Your task to perform on an android device: Go to eBay Image 0: 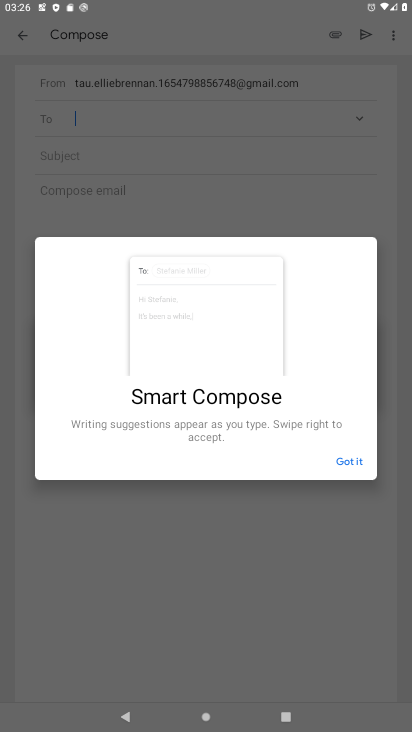
Step 0: press home button
Your task to perform on an android device: Go to eBay Image 1: 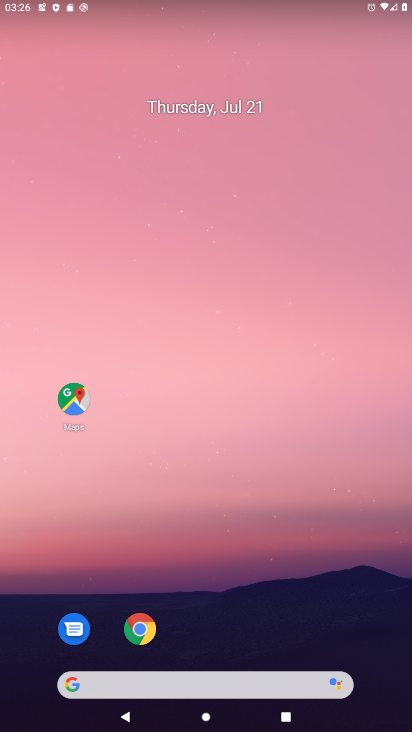
Step 1: press home button
Your task to perform on an android device: Go to eBay Image 2: 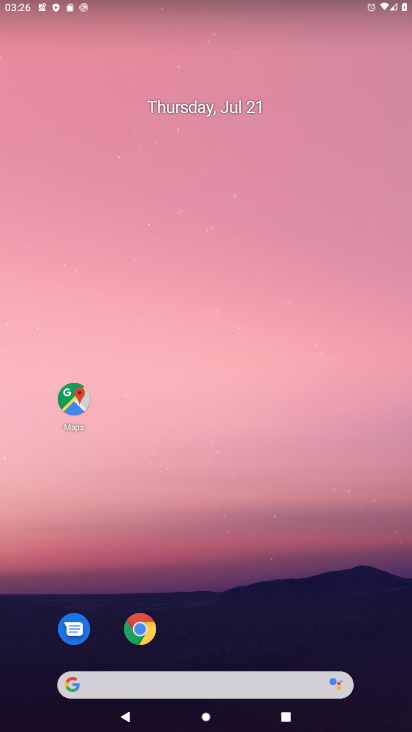
Step 2: drag from (271, 668) to (238, 322)
Your task to perform on an android device: Go to eBay Image 3: 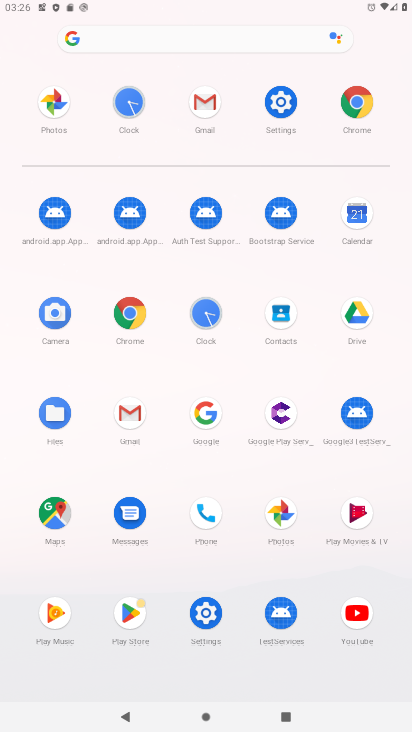
Step 3: click (365, 107)
Your task to perform on an android device: Go to eBay Image 4: 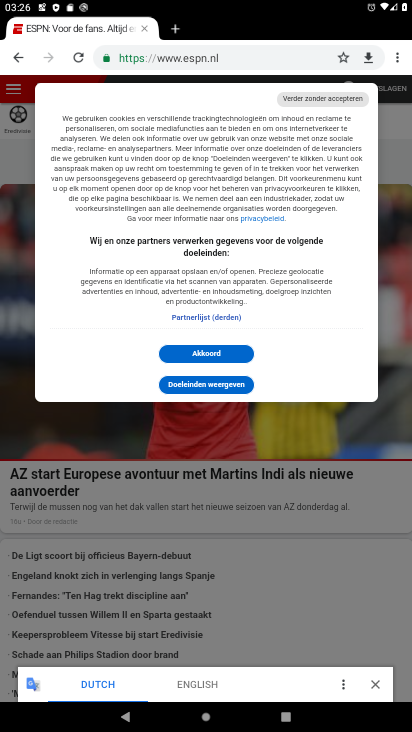
Step 4: click (176, 61)
Your task to perform on an android device: Go to eBay Image 5: 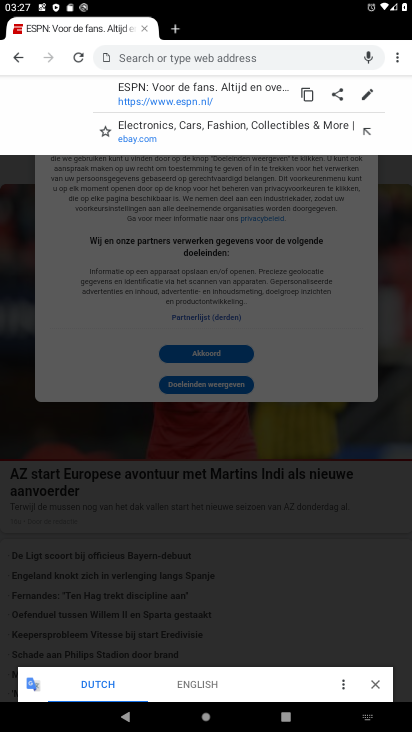
Step 5: type "eBay"
Your task to perform on an android device: Go to eBay Image 6: 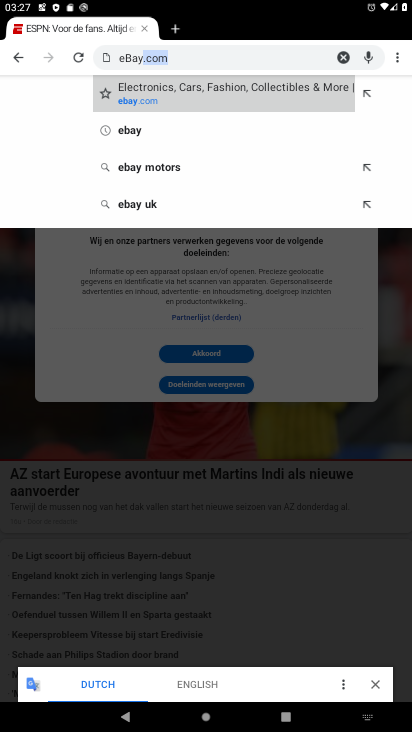
Step 6: click (271, 86)
Your task to perform on an android device: Go to eBay Image 7: 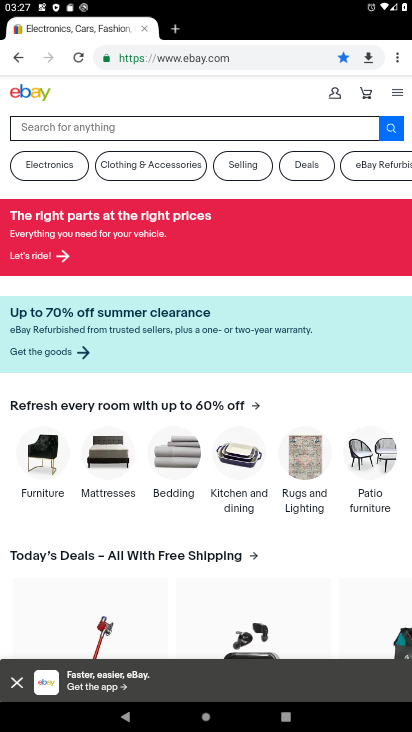
Step 7: task complete